Your task to perform on an android device: Open network settings Image 0: 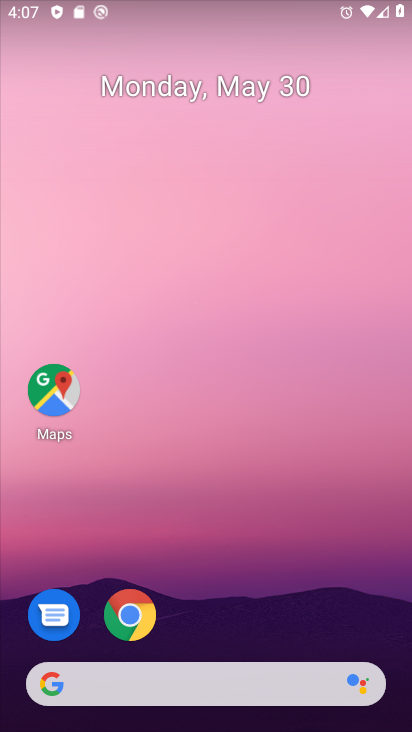
Step 0: drag from (251, 554) to (289, 13)
Your task to perform on an android device: Open network settings Image 1: 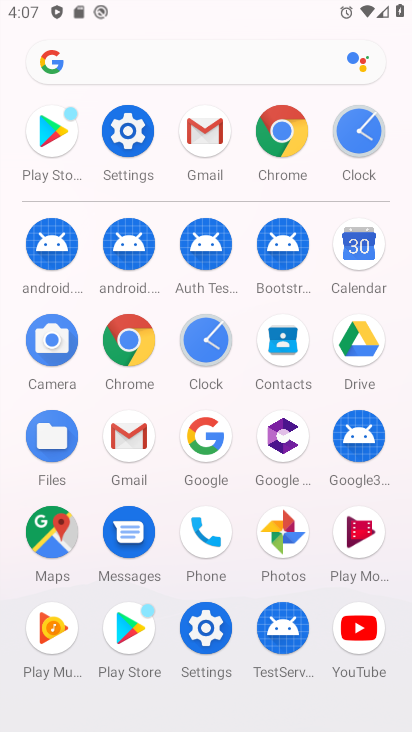
Step 1: click (146, 130)
Your task to perform on an android device: Open network settings Image 2: 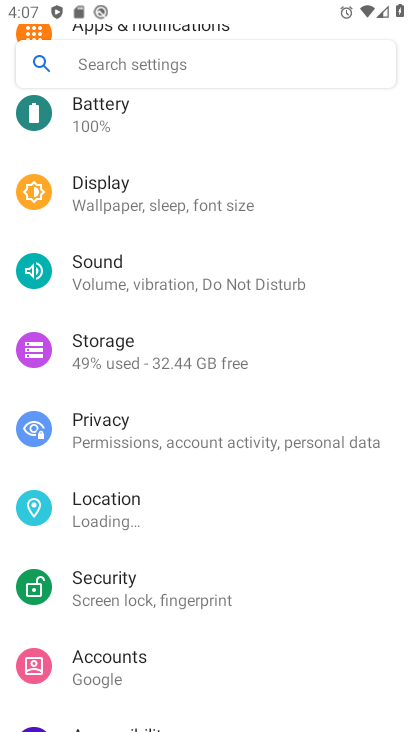
Step 2: drag from (169, 186) to (159, 595)
Your task to perform on an android device: Open network settings Image 3: 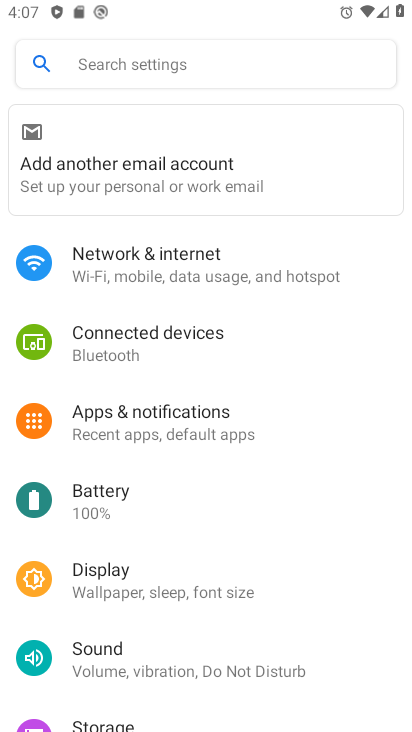
Step 3: click (219, 263)
Your task to perform on an android device: Open network settings Image 4: 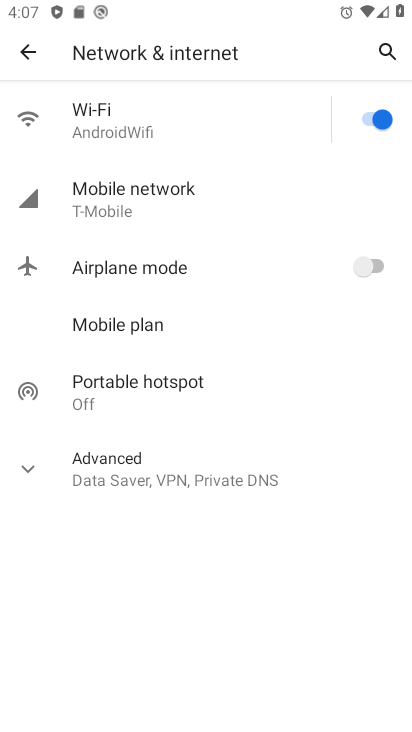
Step 4: task complete